Your task to perform on an android device: turn off notifications settings in the gmail app Image 0: 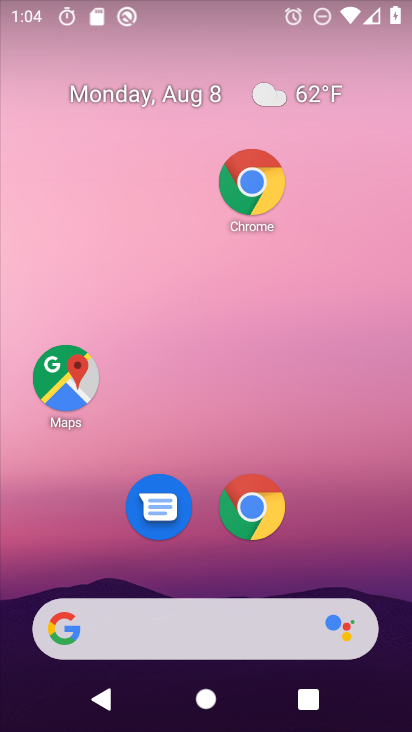
Step 0: drag from (355, 540) to (339, 104)
Your task to perform on an android device: turn off notifications settings in the gmail app Image 1: 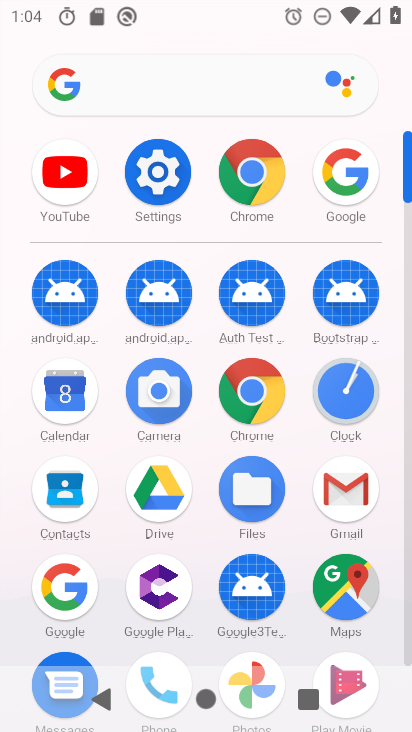
Step 1: click (341, 477)
Your task to perform on an android device: turn off notifications settings in the gmail app Image 2: 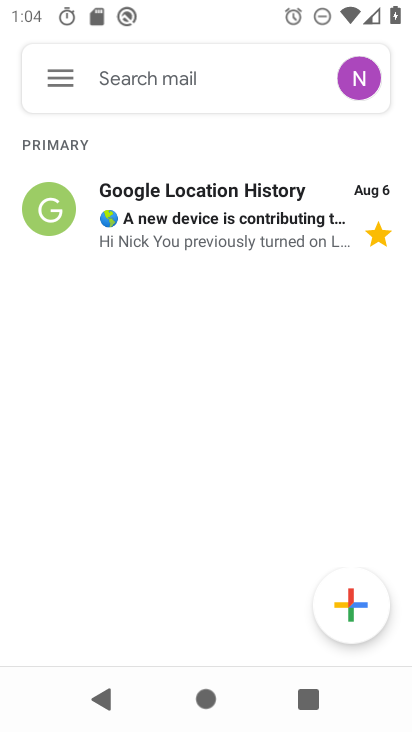
Step 2: click (49, 75)
Your task to perform on an android device: turn off notifications settings in the gmail app Image 3: 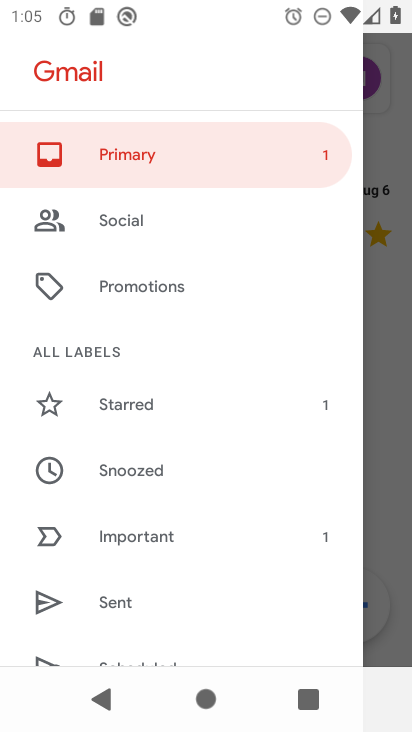
Step 3: drag from (200, 628) to (257, 149)
Your task to perform on an android device: turn off notifications settings in the gmail app Image 4: 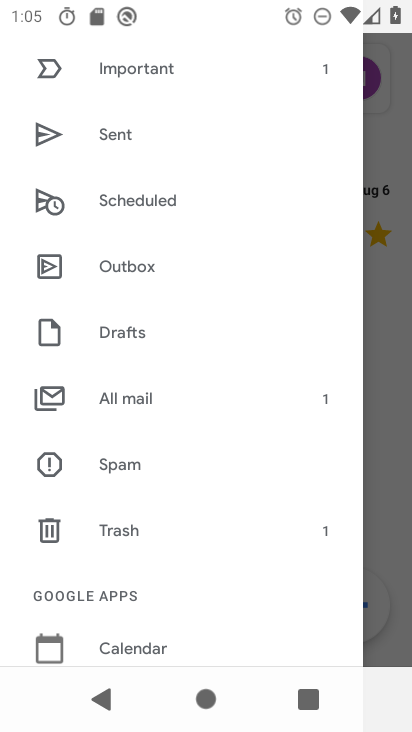
Step 4: drag from (152, 602) to (255, 77)
Your task to perform on an android device: turn off notifications settings in the gmail app Image 5: 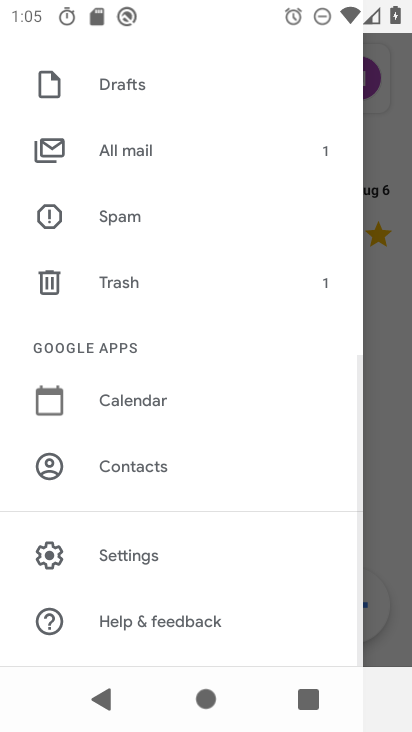
Step 5: click (114, 561)
Your task to perform on an android device: turn off notifications settings in the gmail app Image 6: 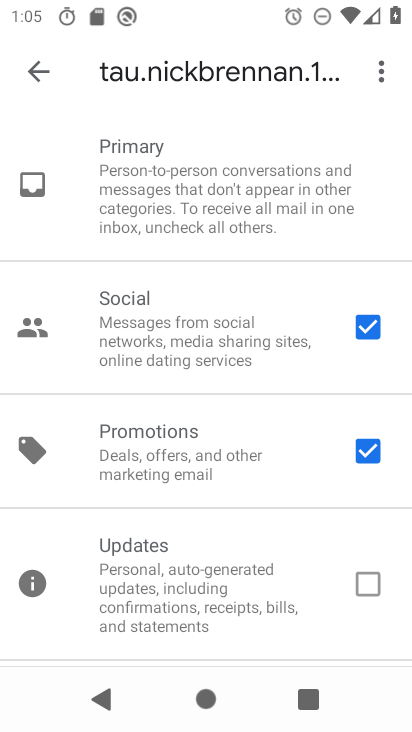
Step 6: click (44, 72)
Your task to perform on an android device: turn off notifications settings in the gmail app Image 7: 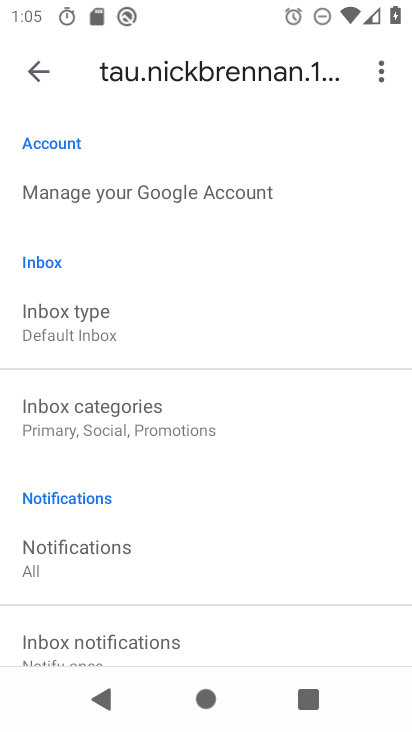
Step 7: drag from (229, 596) to (270, 281)
Your task to perform on an android device: turn off notifications settings in the gmail app Image 8: 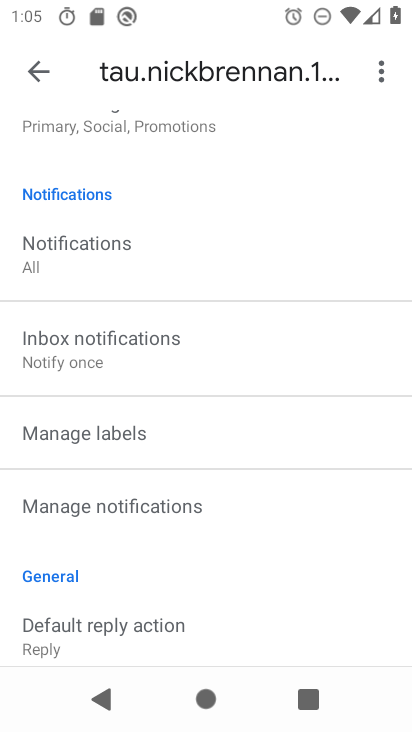
Step 8: click (159, 500)
Your task to perform on an android device: turn off notifications settings in the gmail app Image 9: 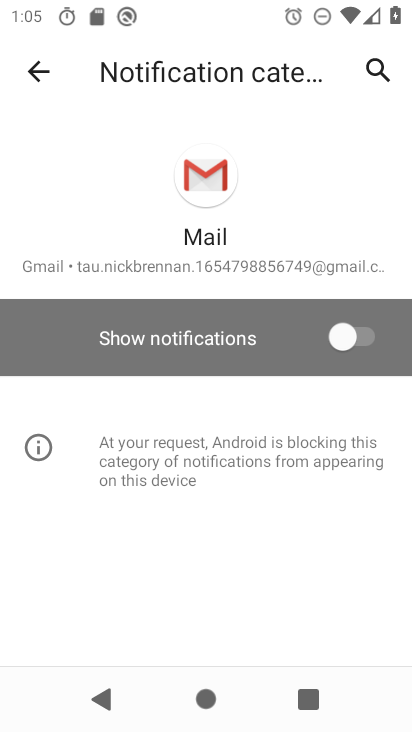
Step 9: task complete